Your task to perform on an android device: Search for "razer blackwidow" on walmart, select the first entry, add it to the cart, then select checkout. Image 0: 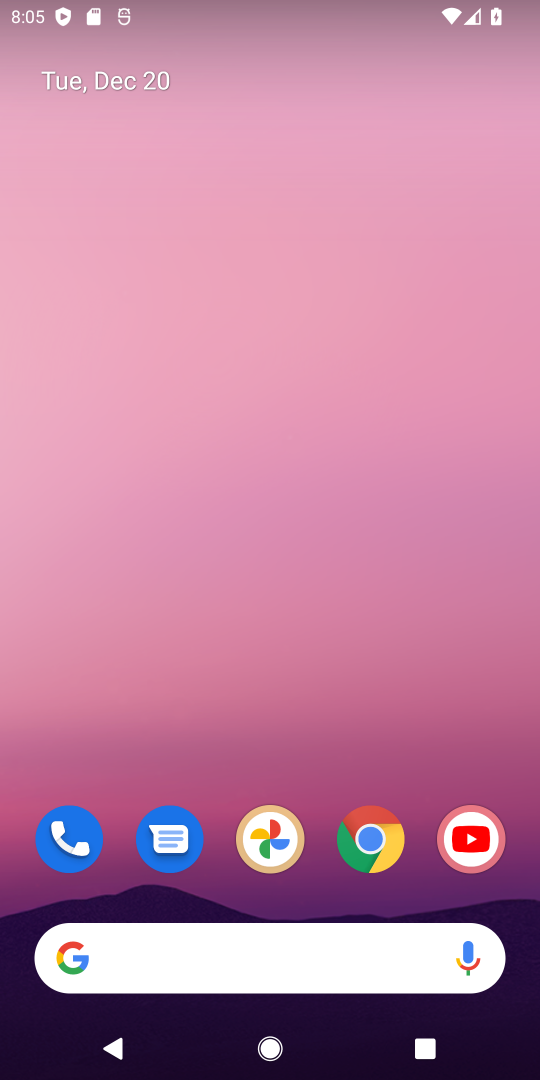
Step 0: drag from (217, 900) to (150, 1070)
Your task to perform on an android device: Search for "razer blackwidow" on walmart, select the first entry, add it to the cart, then select checkout. Image 1: 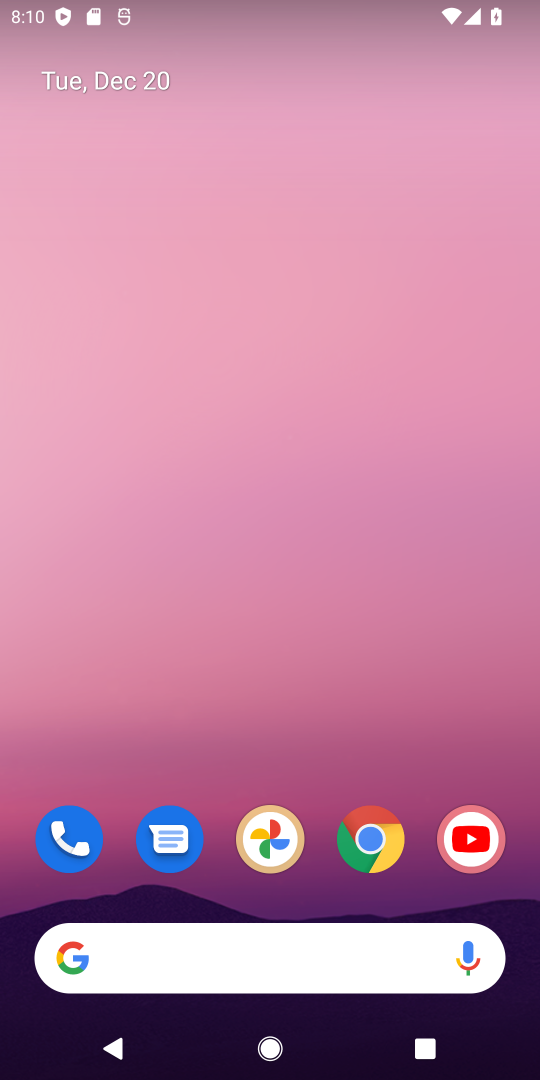
Step 1: click (361, 607)
Your task to perform on an android device: Search for "razer blackwidow" on walmart, select the first entry, add it to the cart, then select checkout. Image 2: 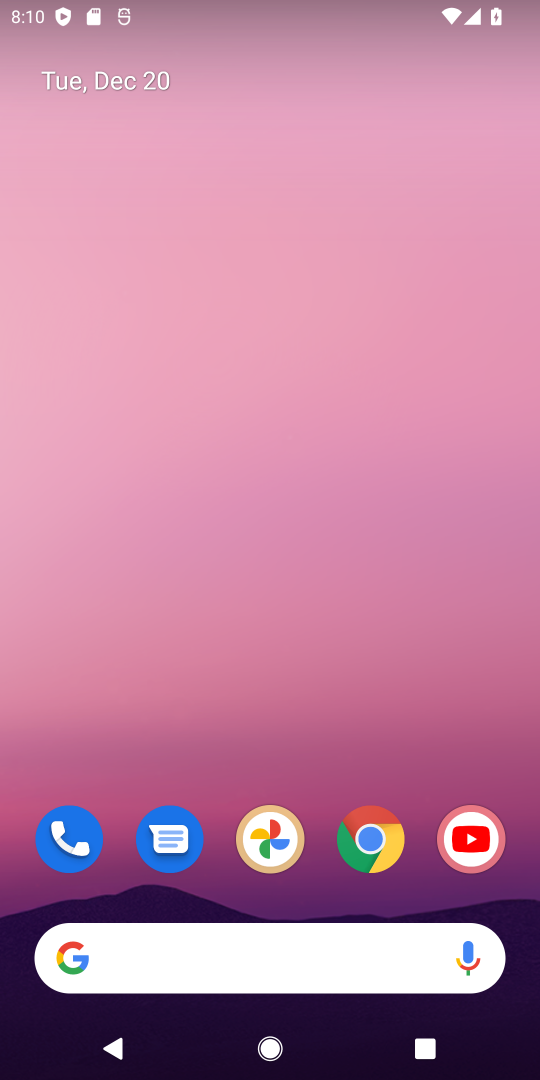
Step 2: click (208, 942)
Your task to perform on an android device: Search for "razer blackwidow" on walmart, select the first entry, add it to the cart, then select checkout. Image 3: 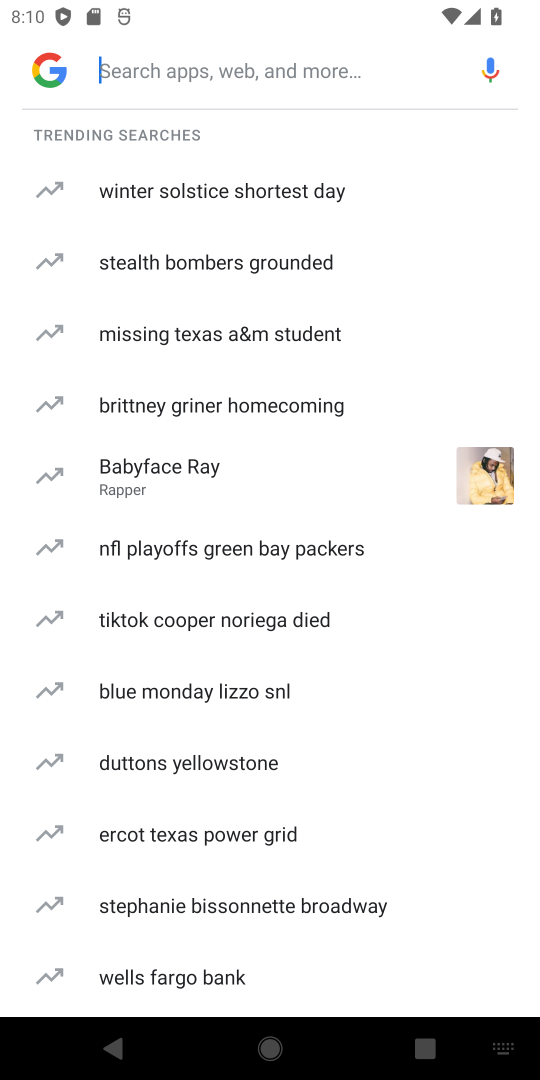
Step 3: type "walmart"
Your task to perform on an android device: Search for "razer blackwidow" on walmart, select the first entry, add it to the cart, then select checkout. Image 4: 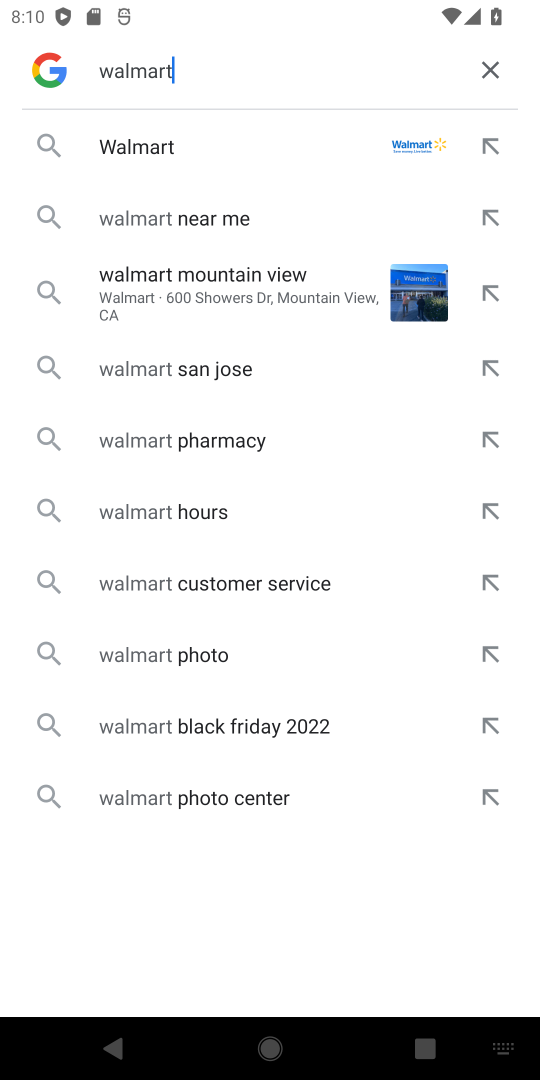
Step 4: click (188, 152)
Your task to perform on an android device: Search for "razer blackwidow" on walmart, select the first entry, add it to the cart, then select checkout. Image 5: 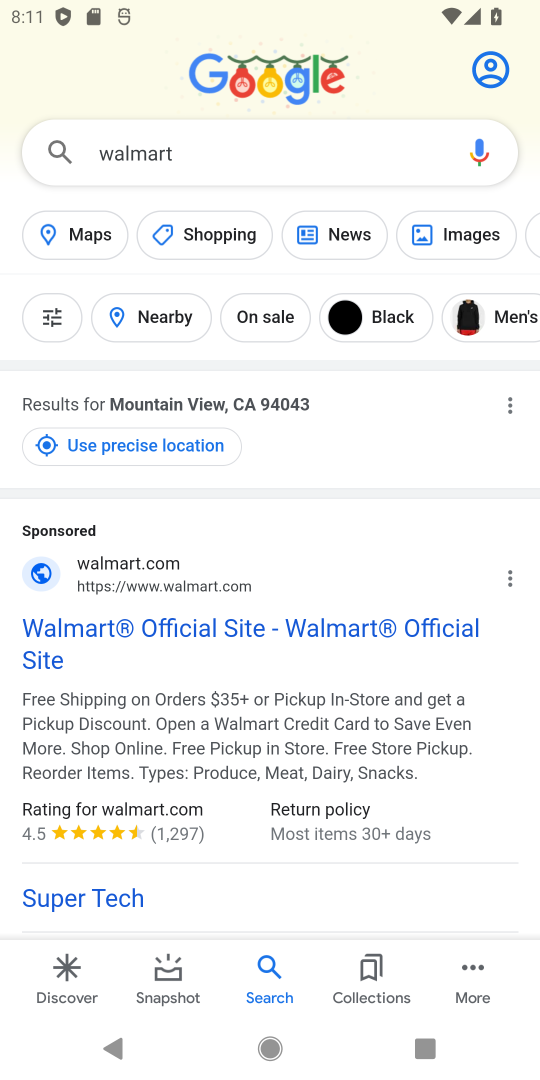
Step 5: drag from (161, 706) to (187, 514)
Your task to perform on an android device: Search for "razer blackwidow" on walmart, select the first entry, add it to the cart, then select checkout. Image 6: 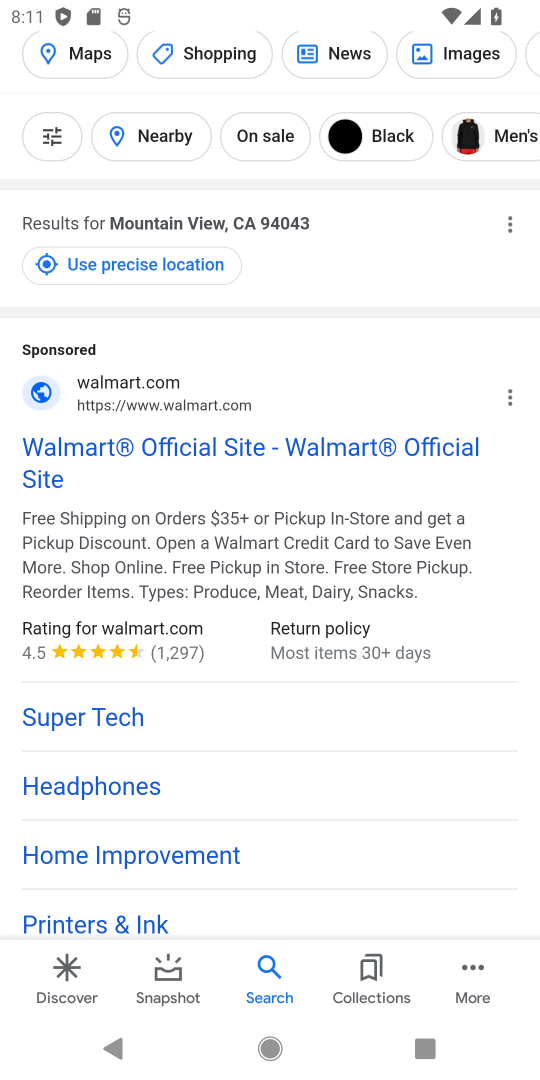
Step 6: click (139, 377)
Your task to perform on an android device: Search for "razer blackwidow" on walmart, select the first entry, add it to the cart, then select checkout. Image 7: 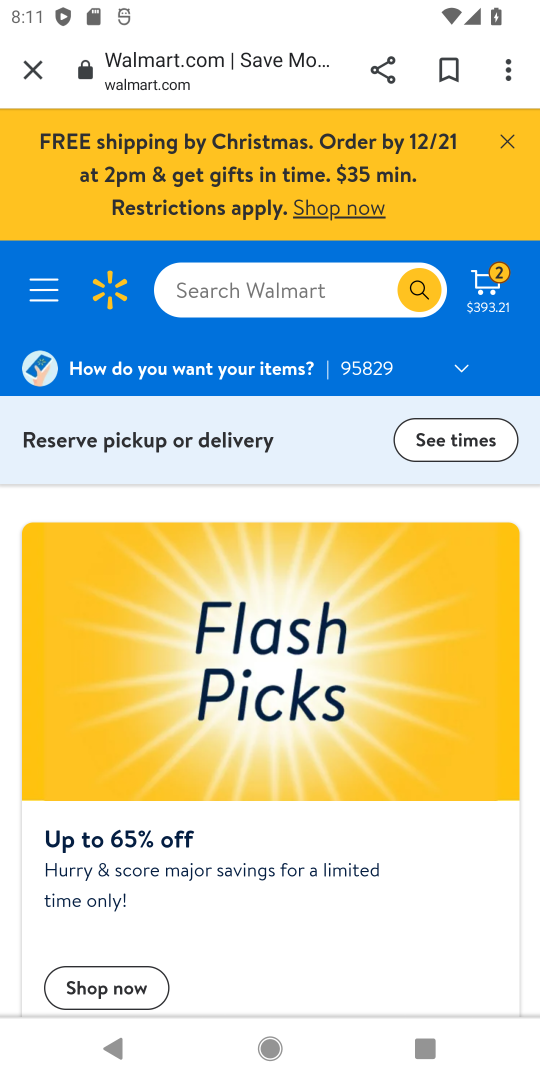
Step 7: click (283, 283)
Your task to perform on an android device: Search for "razer blackwidow" on walmart, select the first entry, add it to the cart, then select checkout. Image 8: 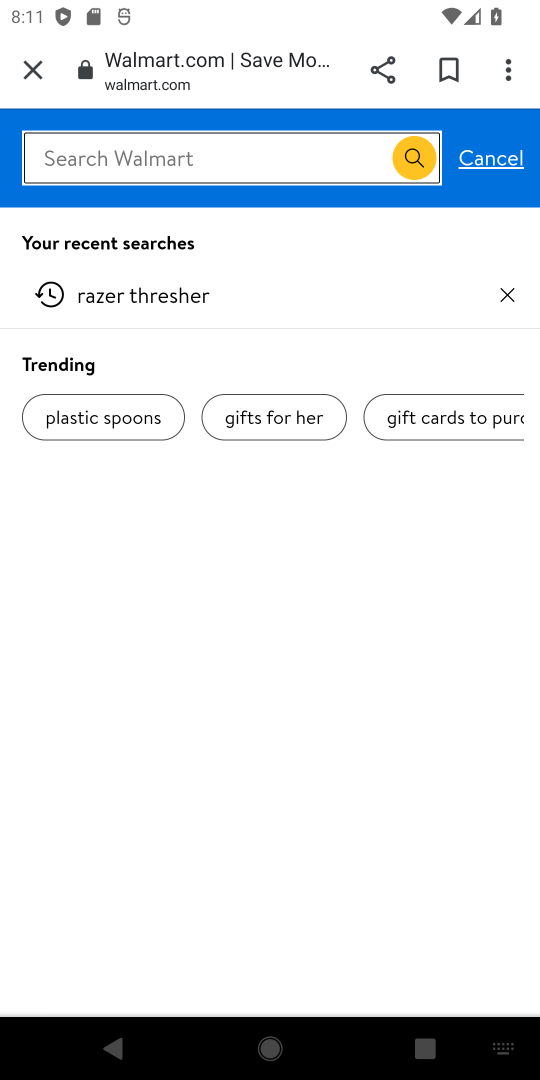
Step 8: type "razer blackwidow"
Your task to perform on an android device: Search for "razer blackwidow" on walmart, select the first entry, add it to the cart, then select checkout. Image 9: 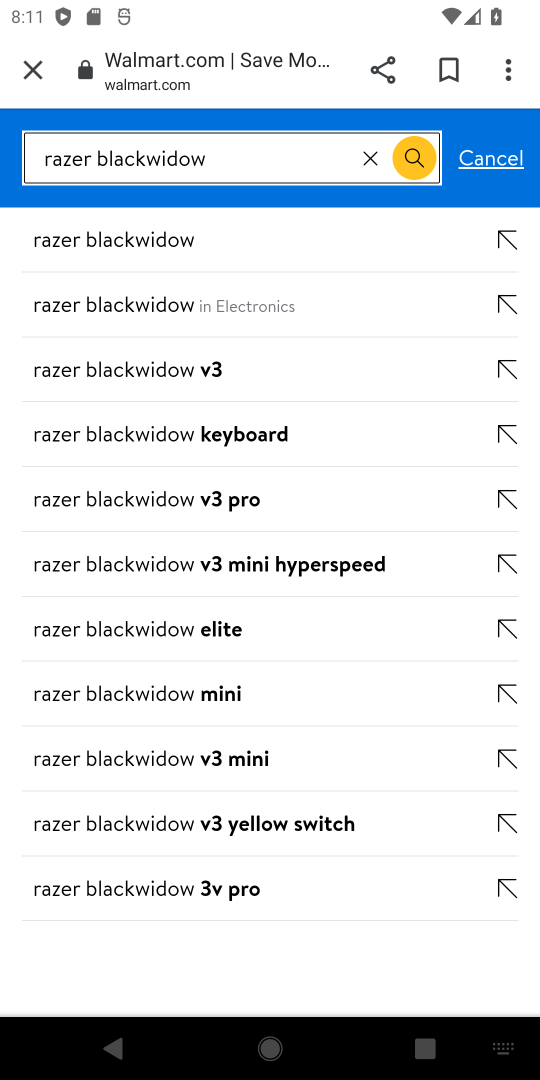
Step 9: click (162, 245)
Your task to perform on an android device: Search for "razer blackwidow" on walmart, select the first entry, add it to the cart, then select checkout. Image 10: 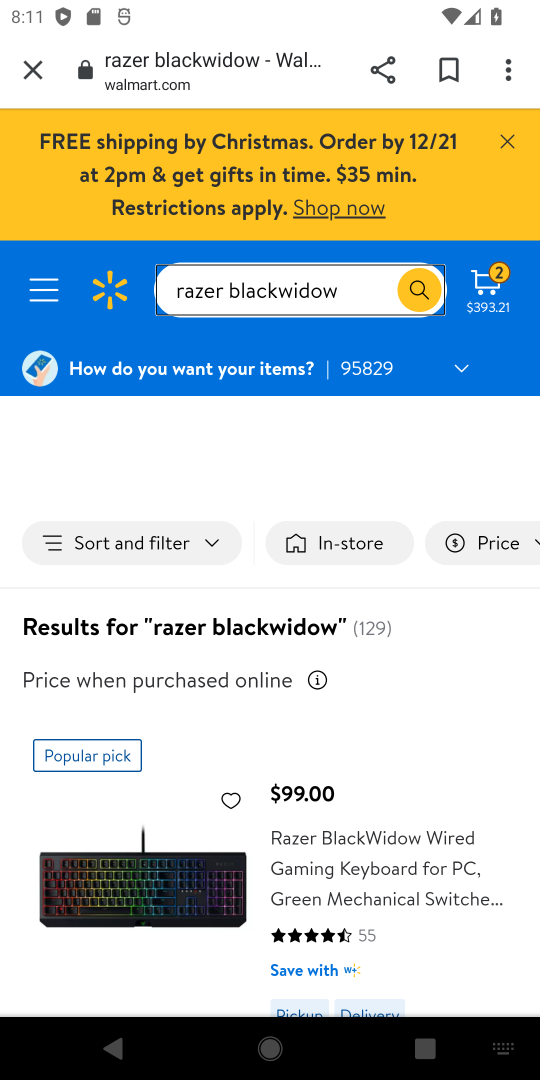
Step 10: drag from (311, 835) to (326, 477)
Your task to perform on an android device: Search for "razer blackwidow" on walmart, select the first entry, add it to the cart, then select checkout. Image 11: 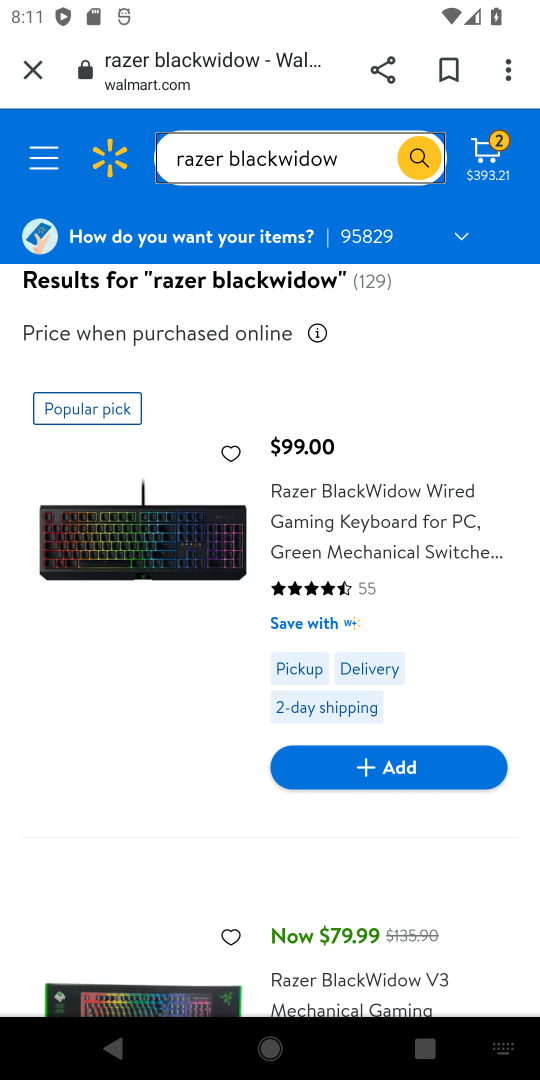
Step 11: click (367, 768)
Your task to perform on an android device: Search for "razer blackwidow" on walmart, select the first entry, add it to the cart, then select checkout. Image 12: 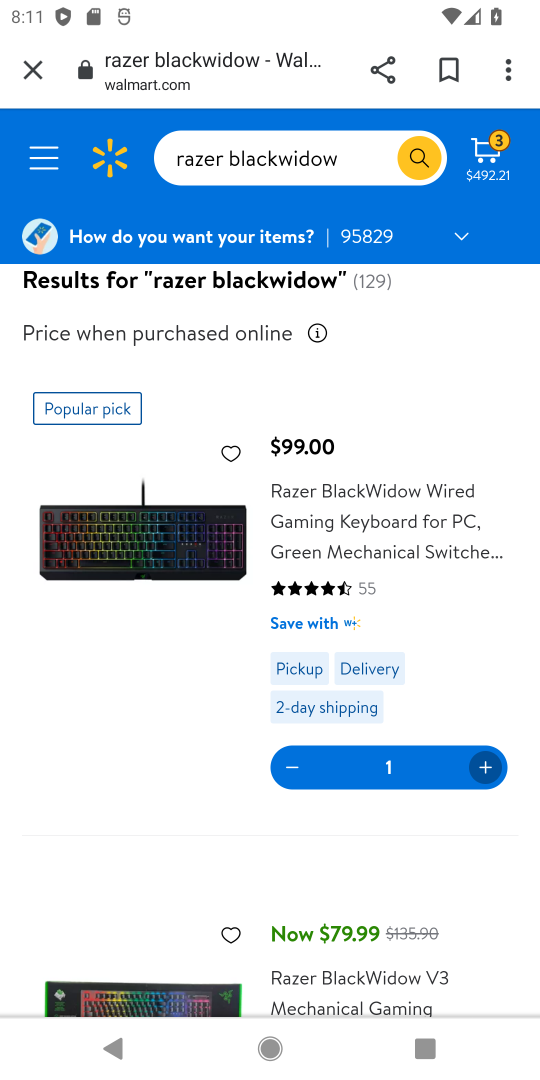
Step 12: click (502, 141)
Your task to perform on an android device: Search for "razer blackwidow" on walmart, select the first entry, add it to the cart, then select checkout. Image 13: 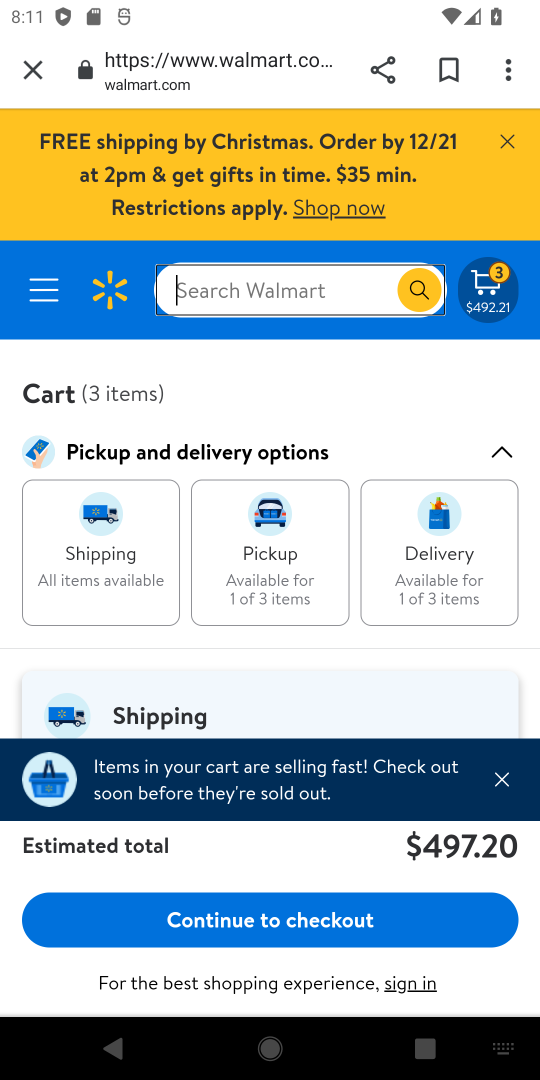
Step 13: click (257, 919)
Your task to perform on an android device: Search for "razer blackwidow" on walmart, select the first entry, add it to the cart, then select checkout. Image 14: 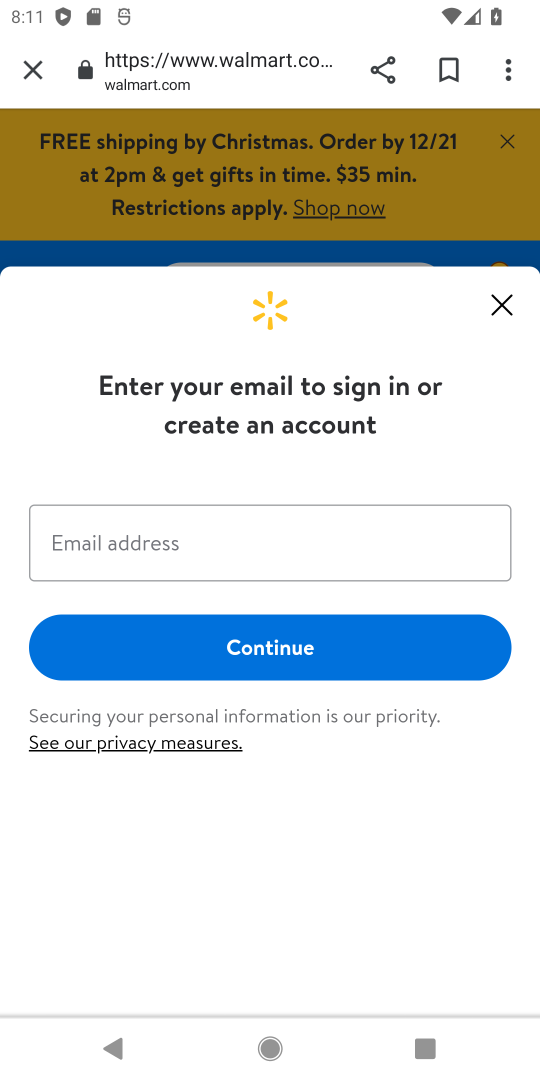
Step 14: task complete